Your task to perform on an android device: Show me popular videos on Youtube Image 0: 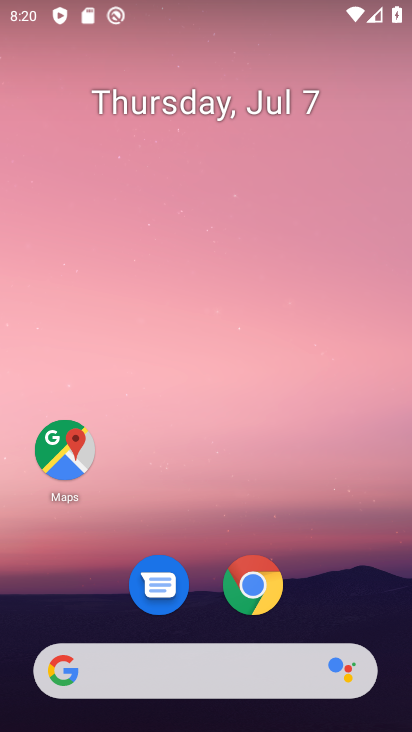
Step 0: drag from (206, 494) to (209, 1)
Your task to perform on an android device: Show me popular videos on Youtube Image 1: 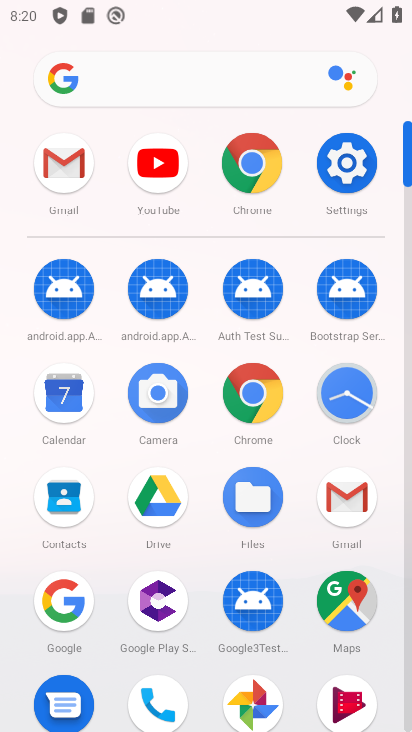
Step 1: click (160, 176)
Your task to perform on an android device: Show me popular videos on Youtube Image 2: 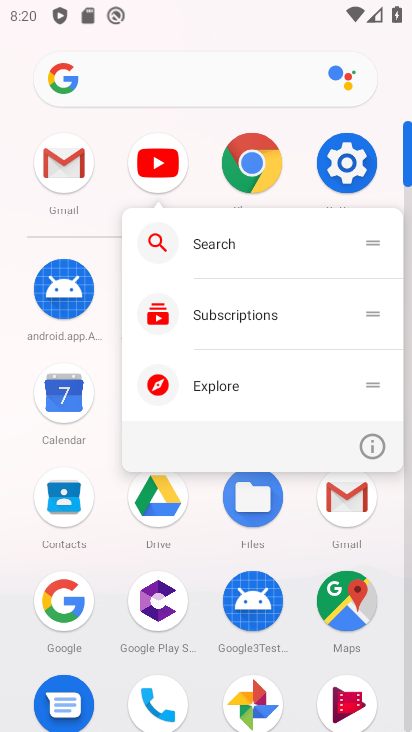
Step 2: click (160, 174)
Your task to perform on an android device: Show me popular videos on Youtube Image 3: 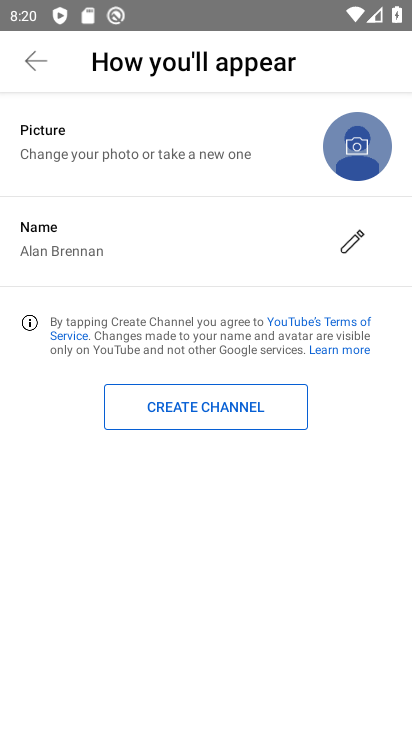
Step 3: click (29, 56)
Your task to perform on an android device: Show me popular videos on Youtube Image 4: 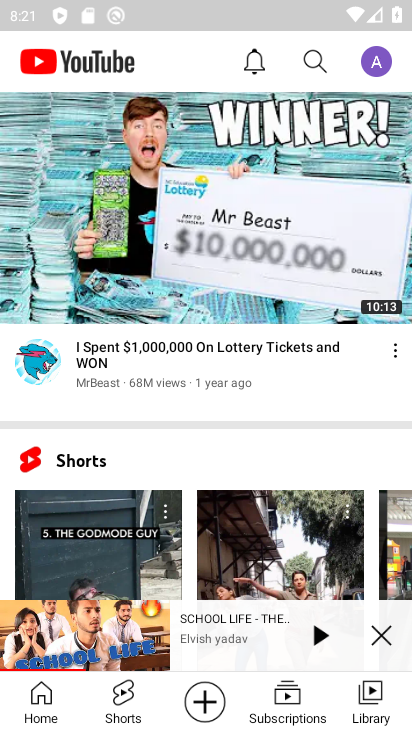
Step 4: click (41, 704)
Your task to perform on an android device: Show me popular videos on Youtube Image 5: 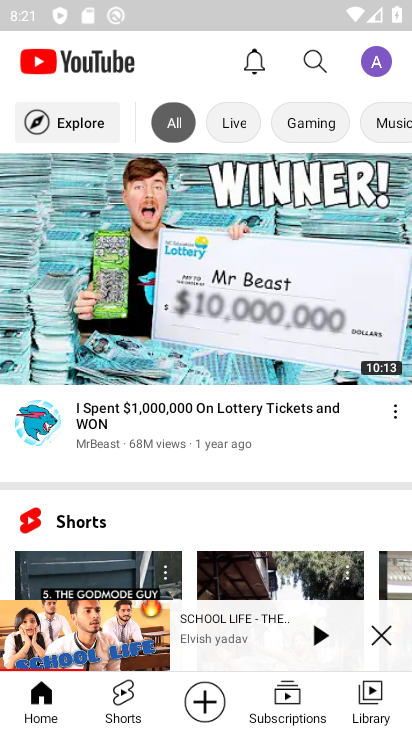
Step 5: click (314, 56)
Your task to perform on an android device: Show me popular videos on Youtube Image 6: 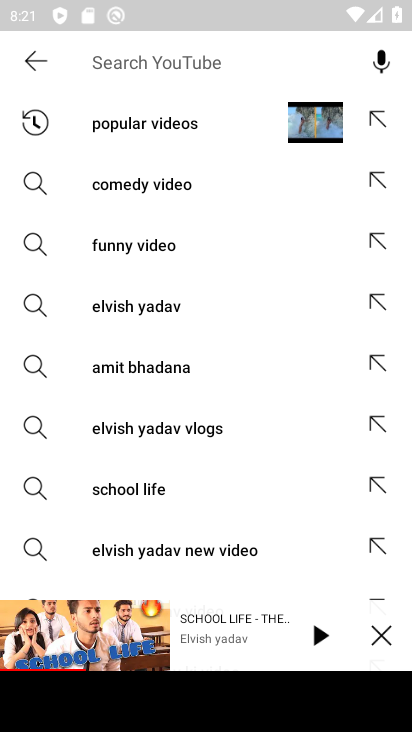
Step 6: click (182, 118)
Your task to perform on an android device: Show me popular videos on Youtube Image 7: 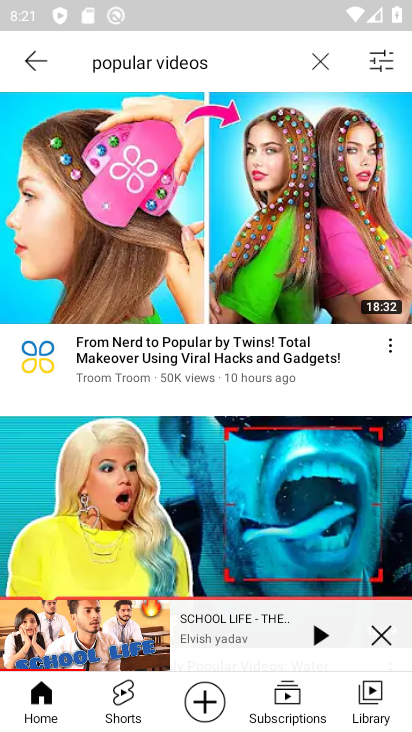
Step 7: task complete